Your task to perform on an android device: change text size in settings app Image 0: 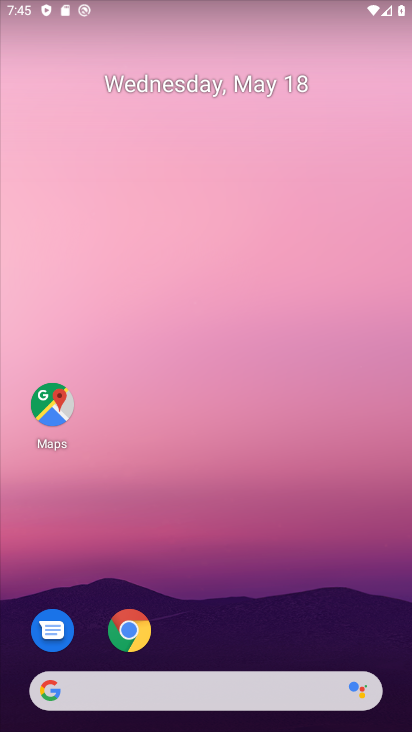
Step 0: drag from (184, 730) to (150, 27)
Your task to perform on an android device: change text size in settings app Image 1: 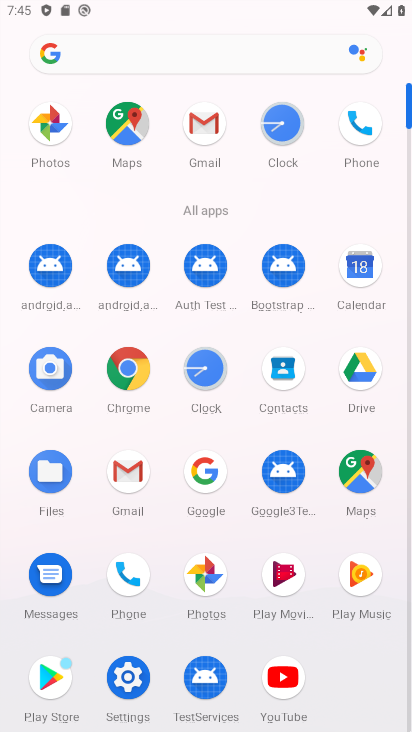
Step 1: click (111, 692)
Your task to perform on an android device: change text size in settings app Image 2: 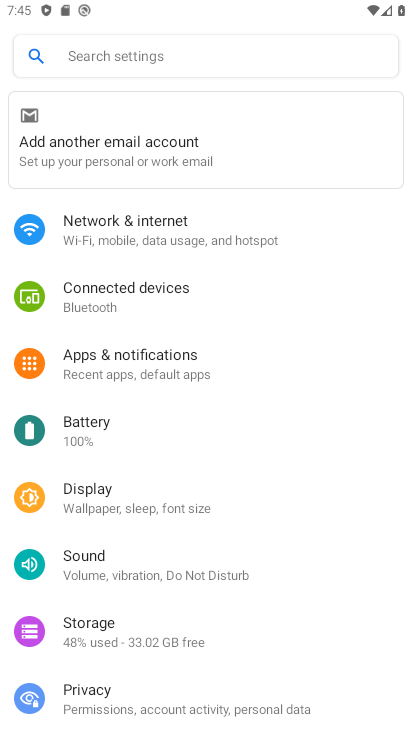
Step 2: click (147, 498)
Your task to perform on an android device: change text size in settings app Image 3: 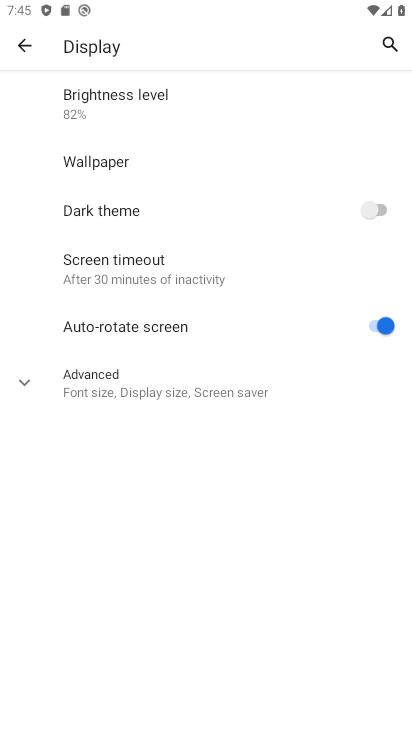
Step 3: click (195, 394)
Your task to perform on an android device: change text size in settings app Image 4: 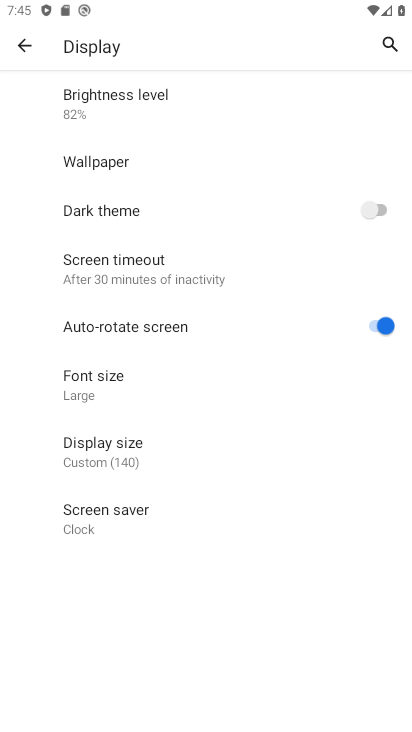
Step 4: click (60, 380)
Your task to perform on an android device: change text size in settings app Image 5: 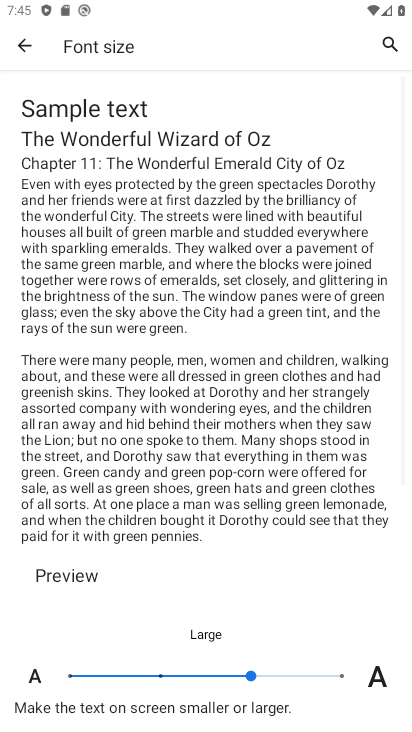
Step 5: click (75, 681)
Your task to perform on an android device: change text size in settings app Image 6: 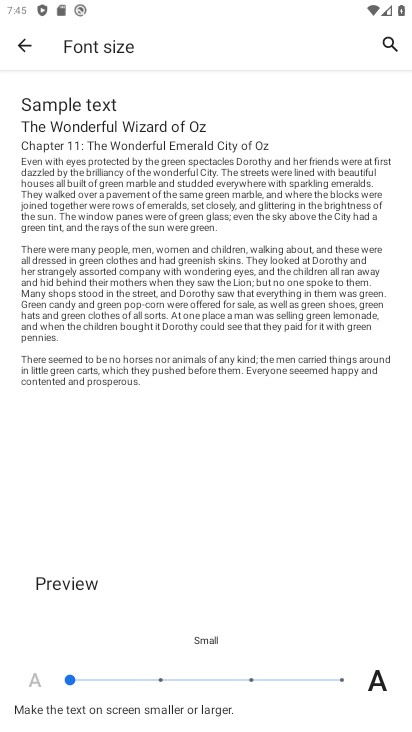
Step 6: task complete